Your task to perform on an android device: Go to privacy settings Image 0: 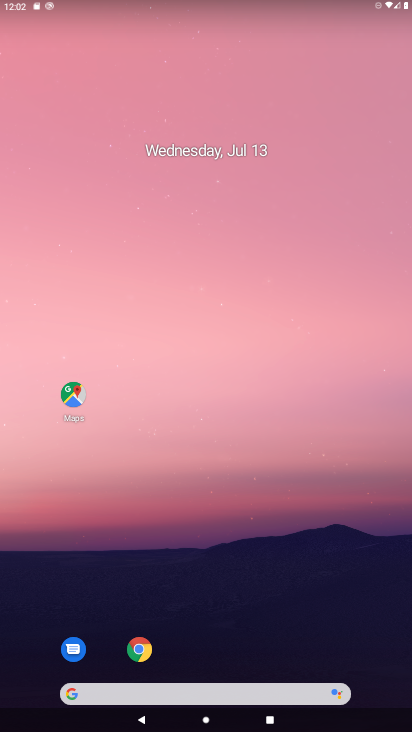
Step 0: drag from (382, 684) to (359, 136)
Your task to perform on an android device: Go to privacy settings Image 1: 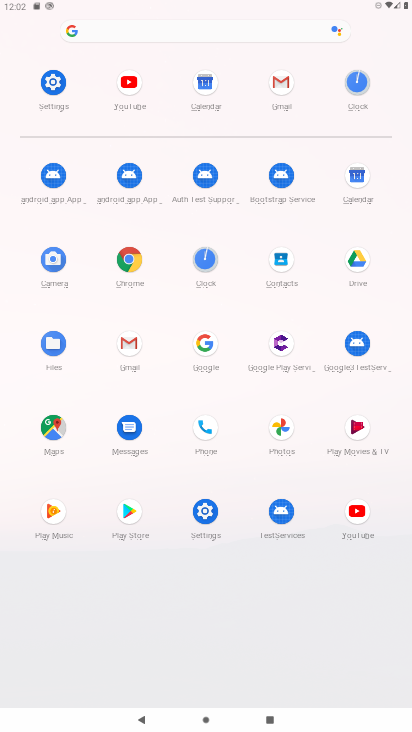
Step 1: click (205, 512)
Your task to perform on an android device: Go to privacy settings Image 2: 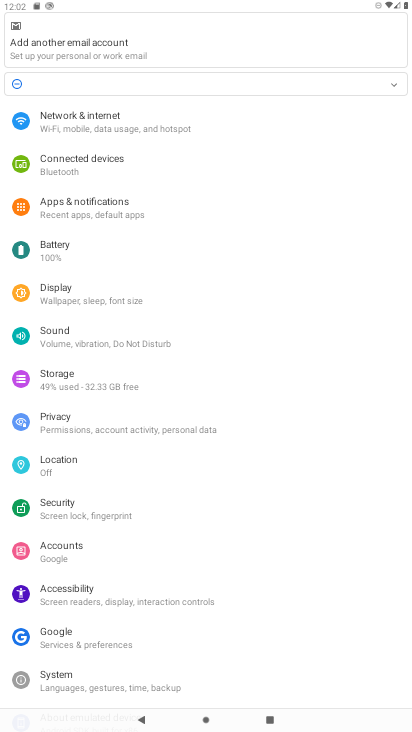
Step 2: click (55, 416)
Your task to perform on an android device: Go to privacy settings Image 3: 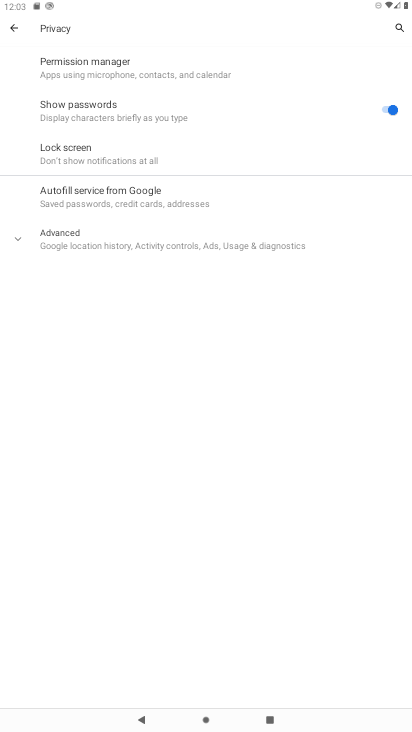
Step 3: task complete